Your task to perform on an android device: check out phone information Image 0: 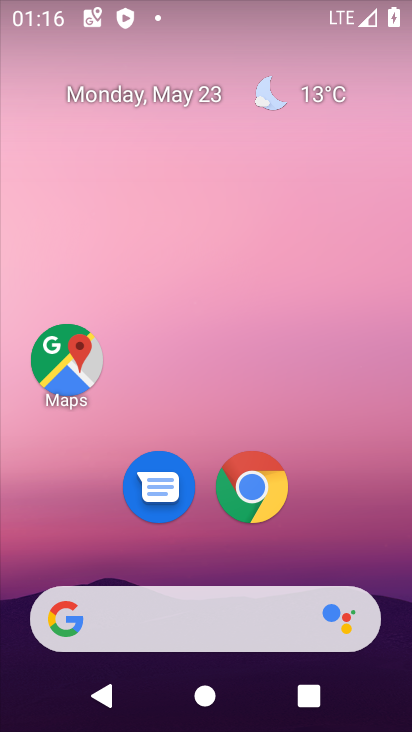
Step 0: drag from (399, 624) to (320, 82)
Your task to perform on an android device: check out phone information Image 1: 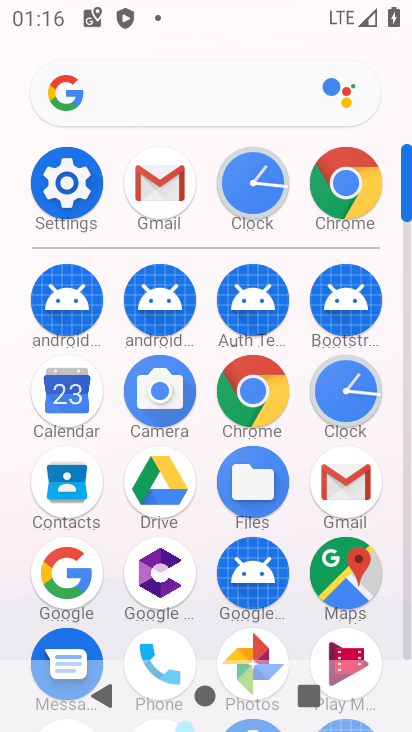
Step 1: click (407, 645)
Your task to perform on an android device: check out phone information Image 2: 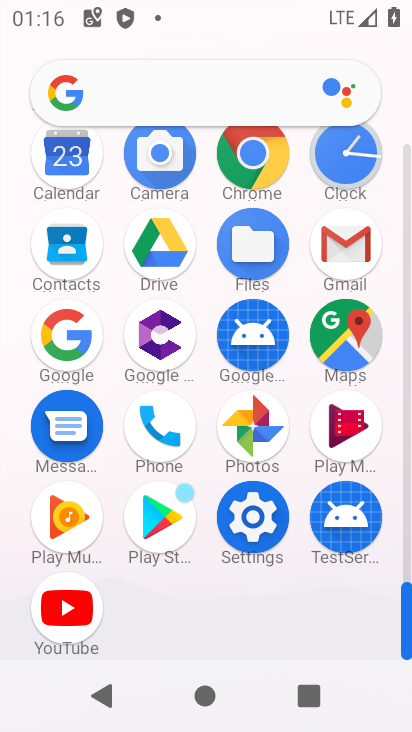
Step 2: click (250, 516)
Your task to perform on an android device: check out phone information Image 3: 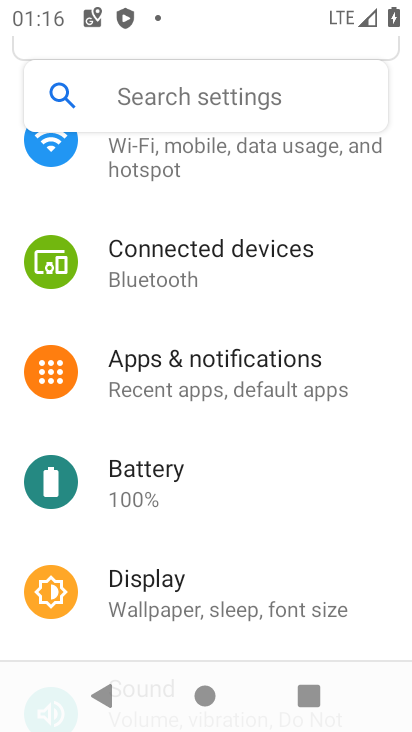
Step 3: drag from (357, 618) to (351, 158)
Your task to perform on an android device: check out phone information Image 4: 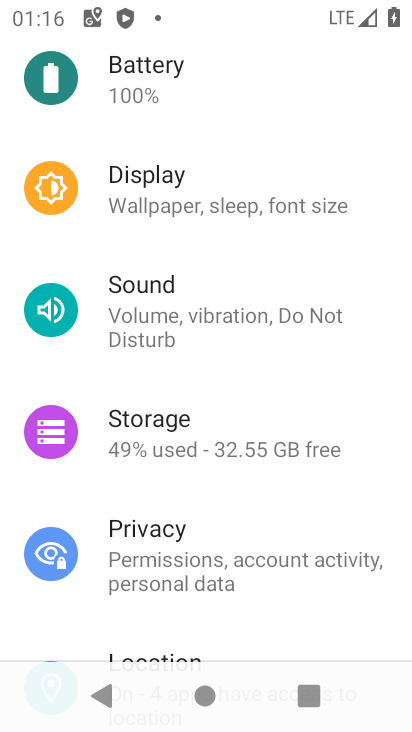
Step 4: drag from (370, 605) to (359, 161)
Your task to perform on an android device: check out phone information Image 5: 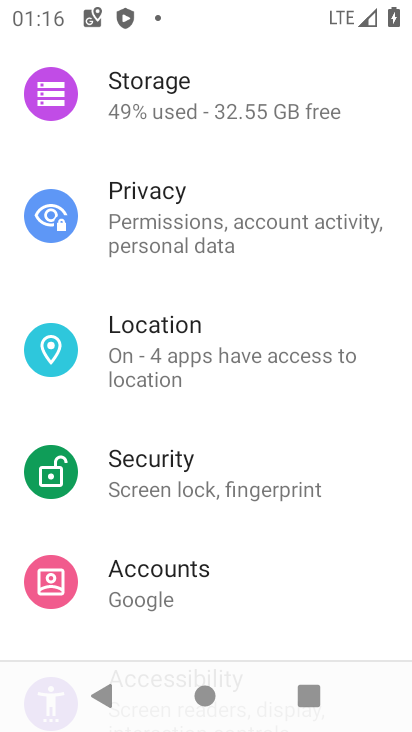
Step 5: drag from (369, 591) to (353, 184)
Your task to perform on an android device: check out phone information Image 6: 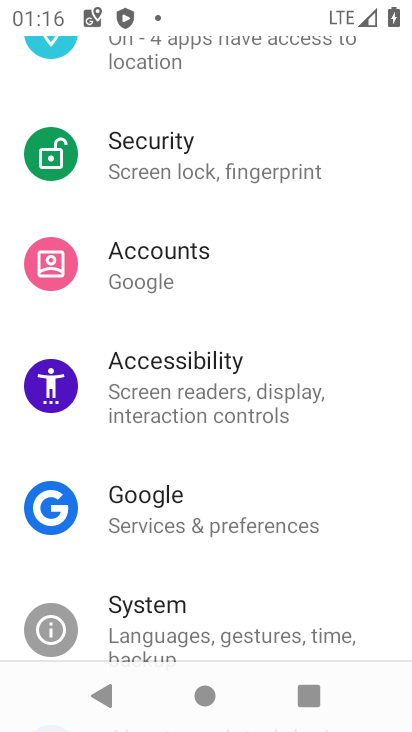
Step 6: drag from (343, 631) to (347, 163)
Your task to perform on an android device: check out phone information Image 7: 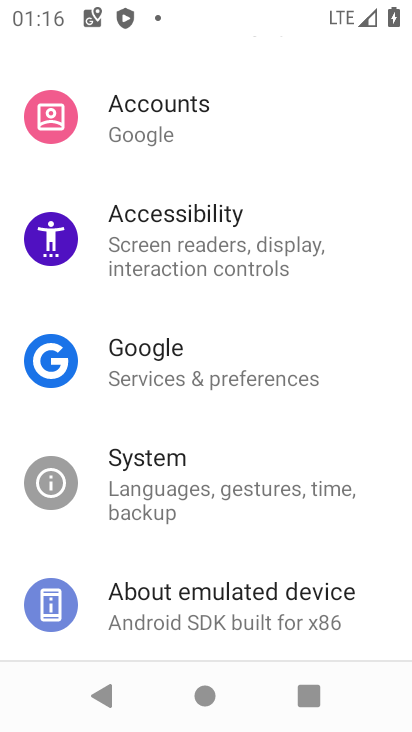
Step 7: click (167, 602)
Your task to perform on an android device: check out phone information Image 8: 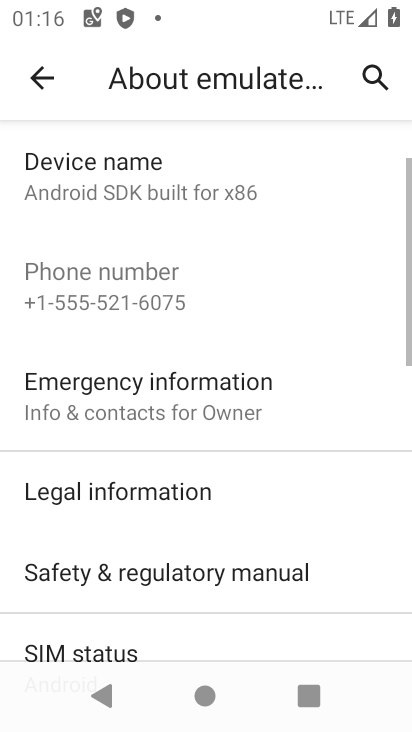
Step 8: task complete